Your task to perform on an android device: turn off javascript in the chrome app Image 0: 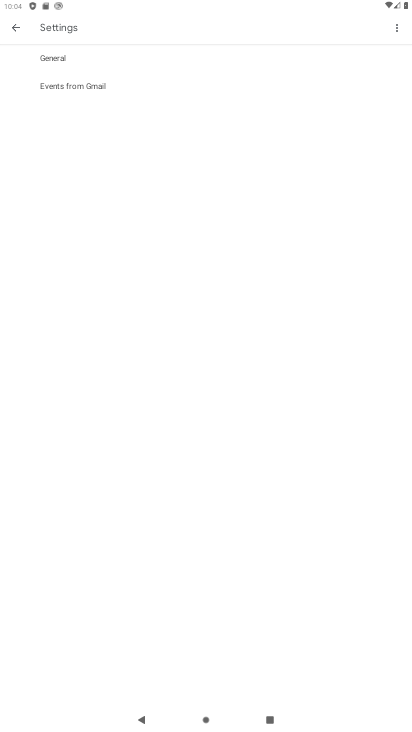
Step 0: press home button
Your task to perform on an android device: turn off javascript in the chrome app Image 1: 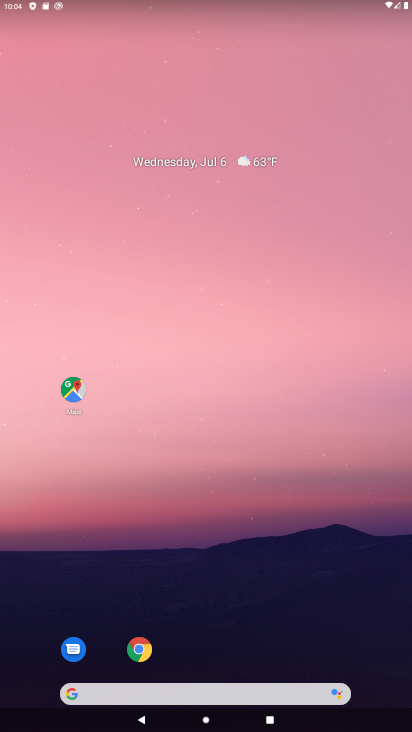
Step 1: click (143, 650)
Your task to perform on an android device: turn off javascript in the chrome app Image 2: 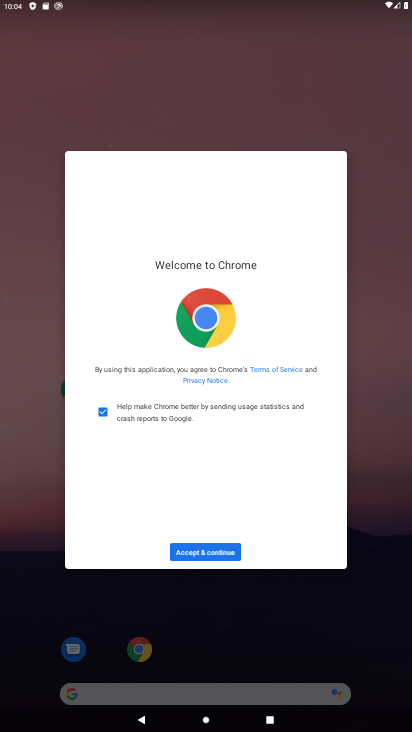
Step 2: click (186, 551)
Your task to perform on an android device: turn off javascript in the chrome app Image 3: 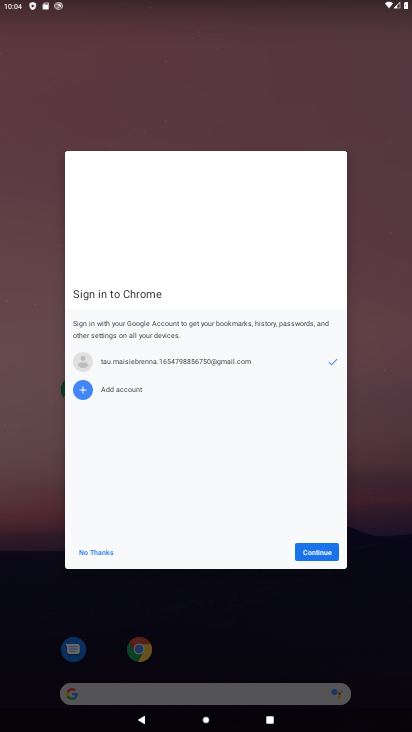
Step 3: click (312, 548)
Your task to perform on an android device: turn off javascript in the chrome app Image 4: 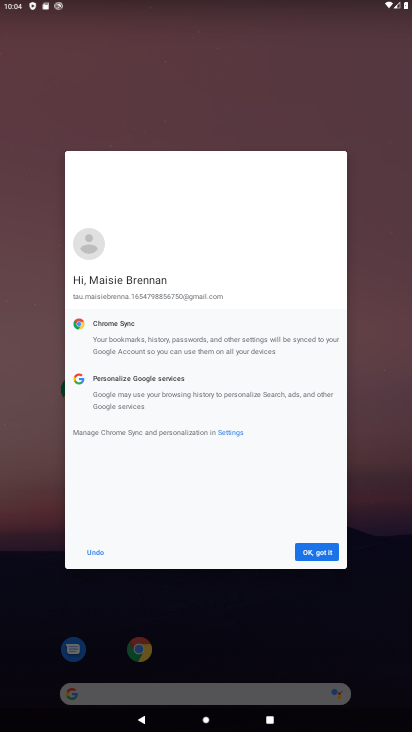
Step 4: click (304, 545)
Your task to perform on an android device: turn off javascript in the chrome app Image 5: 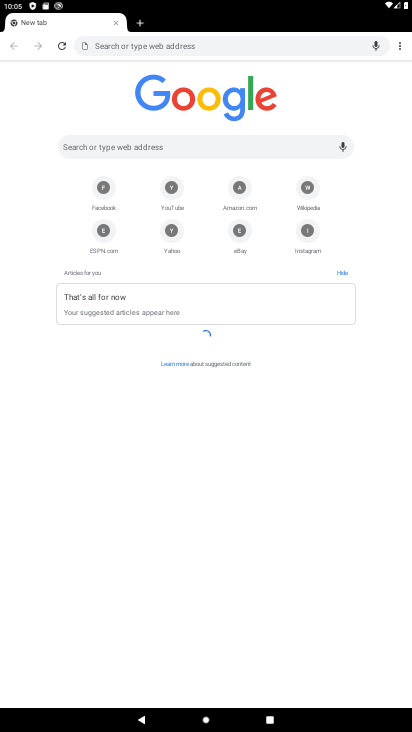
Step 5: click (402, 51)
Your task to perform on an android device: turn off javascript in the chrome app Image 6: 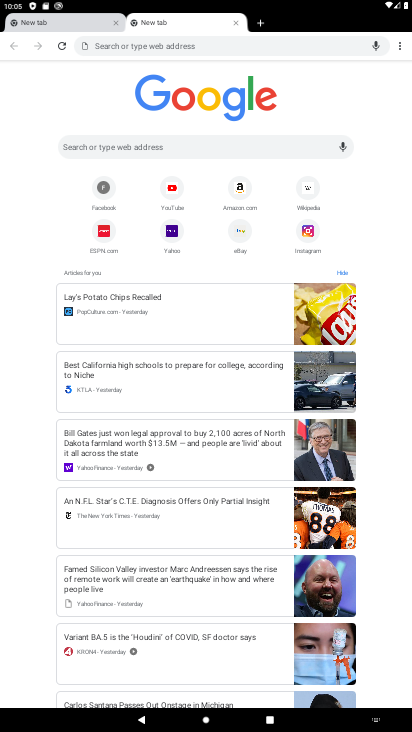
Step 6: click (399, 47)
Your task to perform on an android device: turn off javascript in the chrome app Image 7: 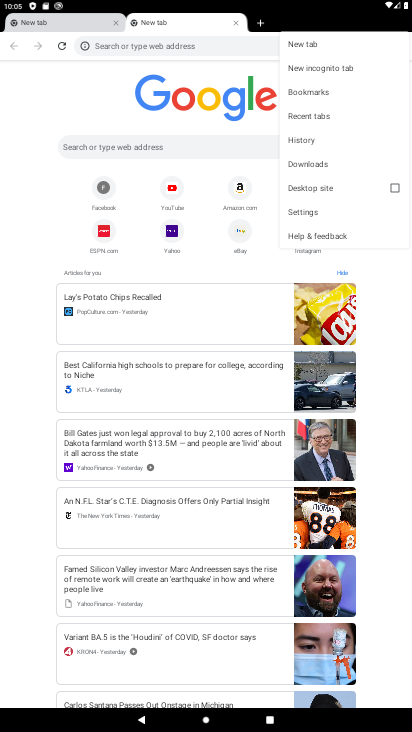
Step 7: click (314, 208)
Your task to perform on an android device: turn off javascript in the chrome app Image 8: 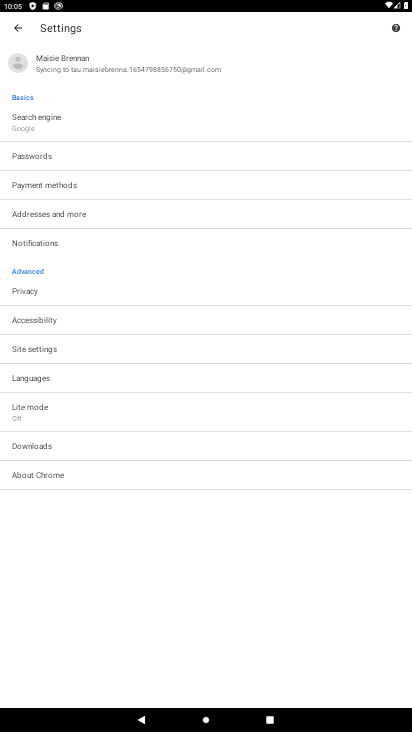
Step 8: click (34, 350)
Your task to perform on an android device: turn off javascript in the chrome app Image 9: 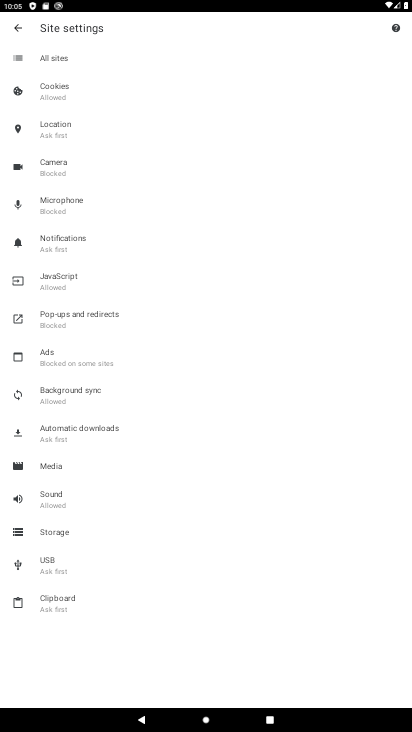
Step 9: click (57, 280)
Your task to perform on an android device: turn off javascript in the chrome app Image 10: 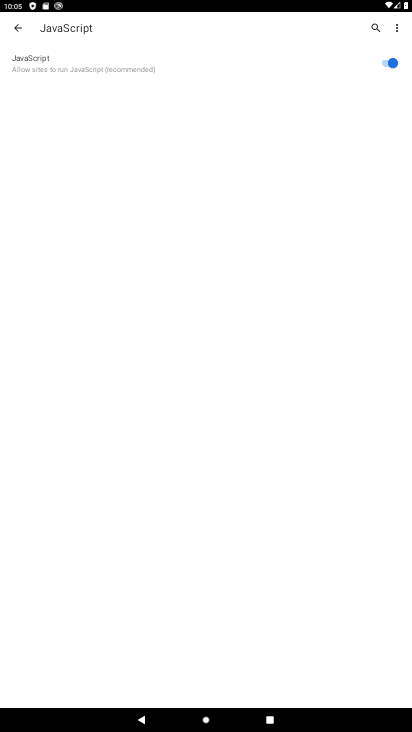
Step 10: click (393, 60)
Your task to perform on an android device: turn off javascript in the chrome app Image 11: 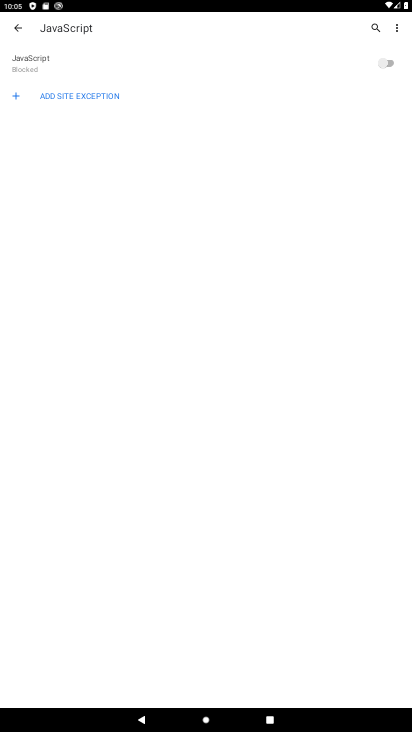
Step 11: task complete